Your task to perform on an android device: turn smart compose on in the gmail app Image 0: 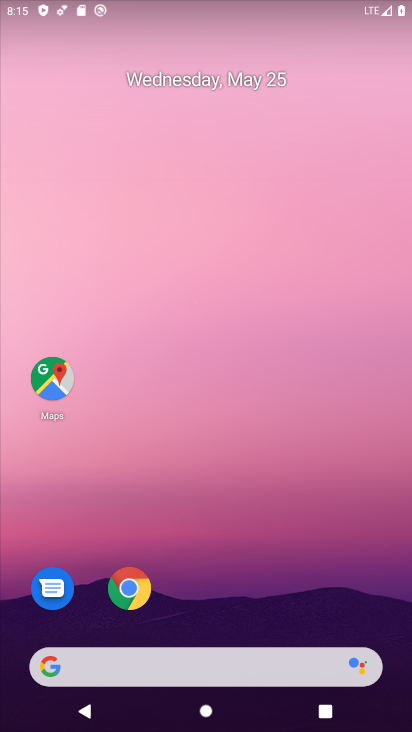
Step 0: drag from (0, 563) to (303, 126)
Your task to perform on an android device: turn smart compose on in the gmail app Image 1: 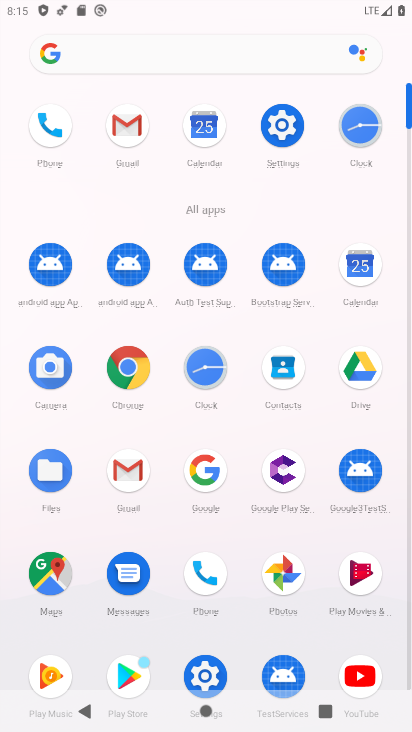
Step 1: click (107, 125)
Your task to perform on an android device: turn smart compose on in the gmail app Image 2: 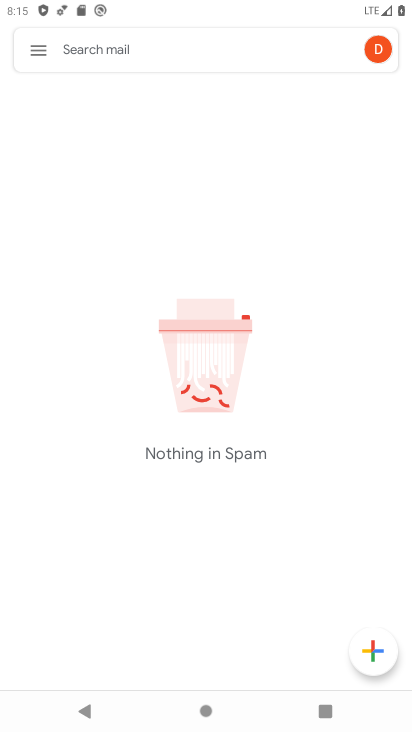
Step 2: click (49, 53)
Your task to perform on an android device: turn smart compose on in the gmail app Image 3: 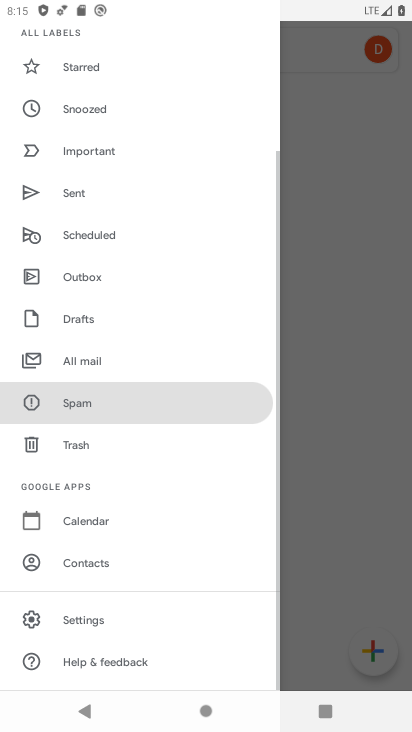
Step 3: click (35, 615)
Your task to perform on an android device: turn smart compose on in the gmail app Image 4: 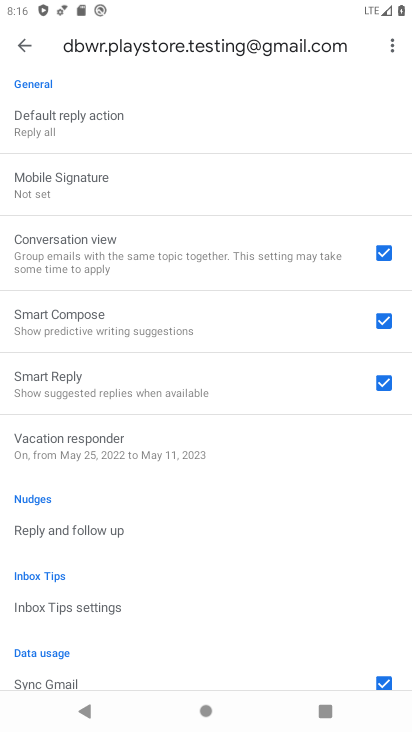
Step 4: task complete